Your task to perform on an android device: toggle airplane mode Image 0: 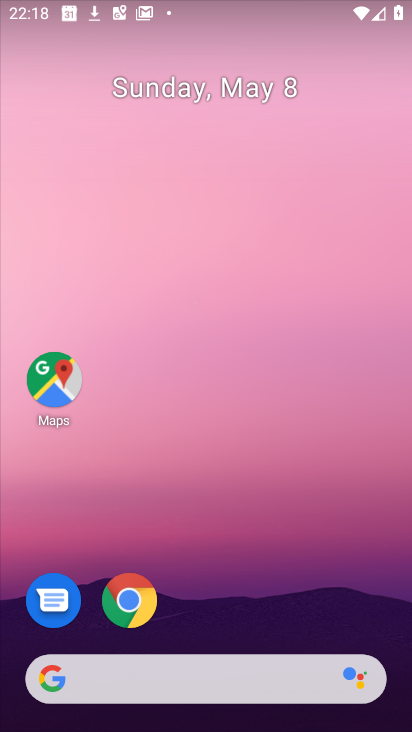
Step 0: drag from (223, 723) to (231, 114)
Your task to perform on an android device: toggle airplane mode Image 1: 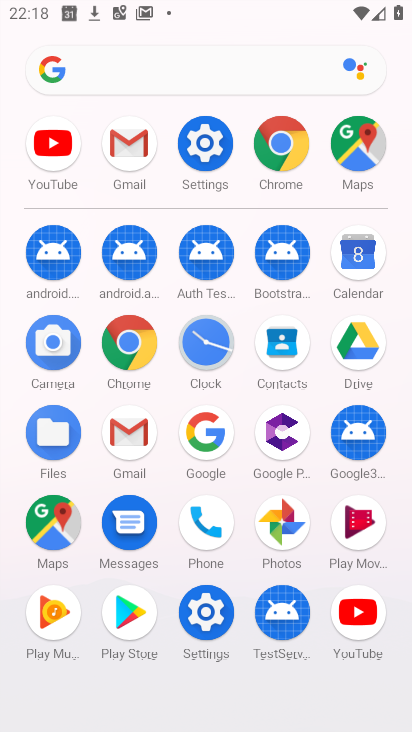
Step 1: click (215, 163)
Your task to perform on an android device: toggle airplane mode Image 2: 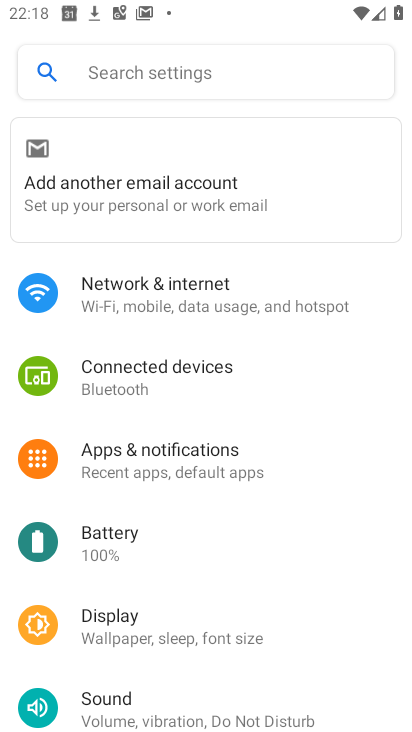
Step 2: click (119, 292)
Your task to perform on an android device: toggle airplane mode Image 3: 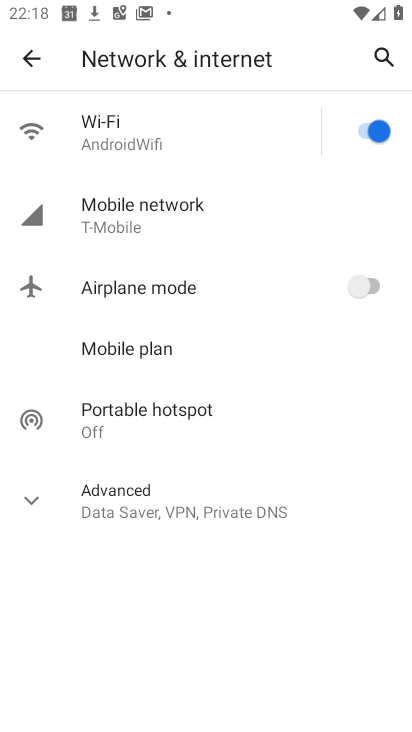
Step 3: click (100, 298)
Your task to perform on an android device: toggle airplane mode Image 4: 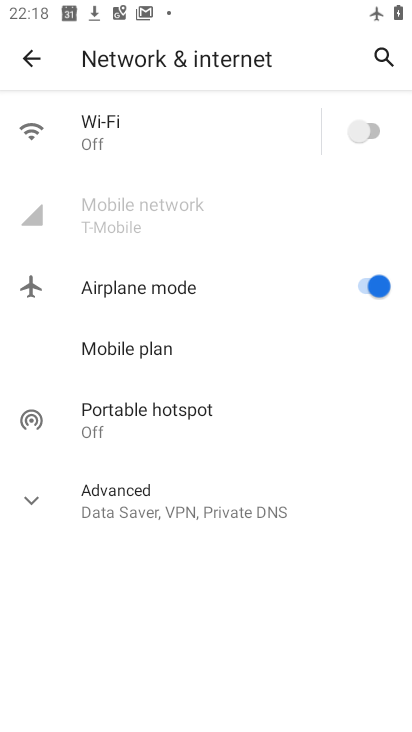
Step 4: click (100, 298)
Your task to perform on an android device: toggle airplane mode Image 5: 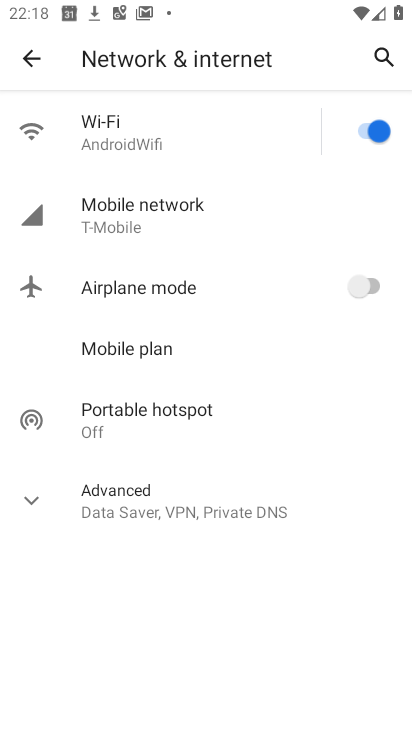
Step 5: task complete